Your task to perform on an android device: Clear all items from cart on amazon.com. Image 0: 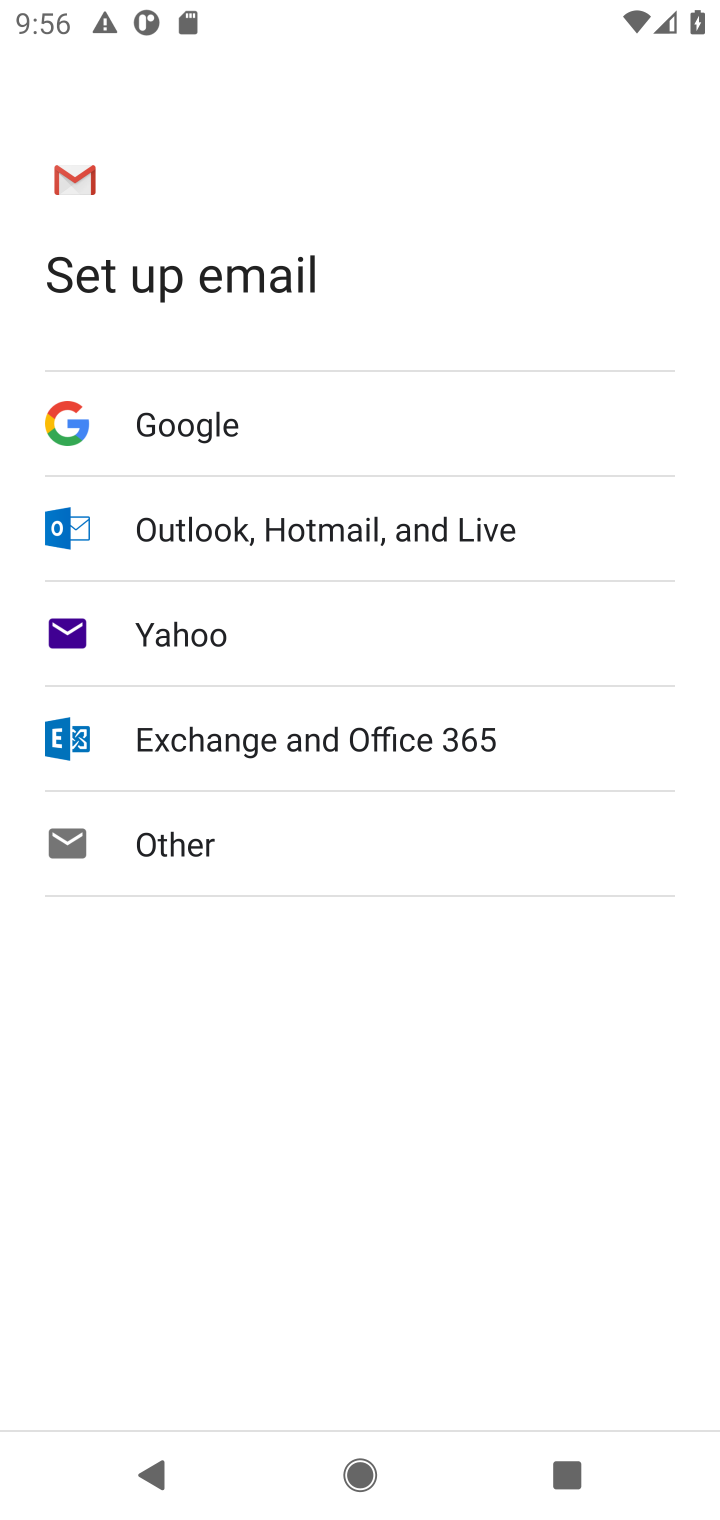
Step 0: press home button
Your task to perform on an android device: Clear all items from cart on amazon.com. Image 1: 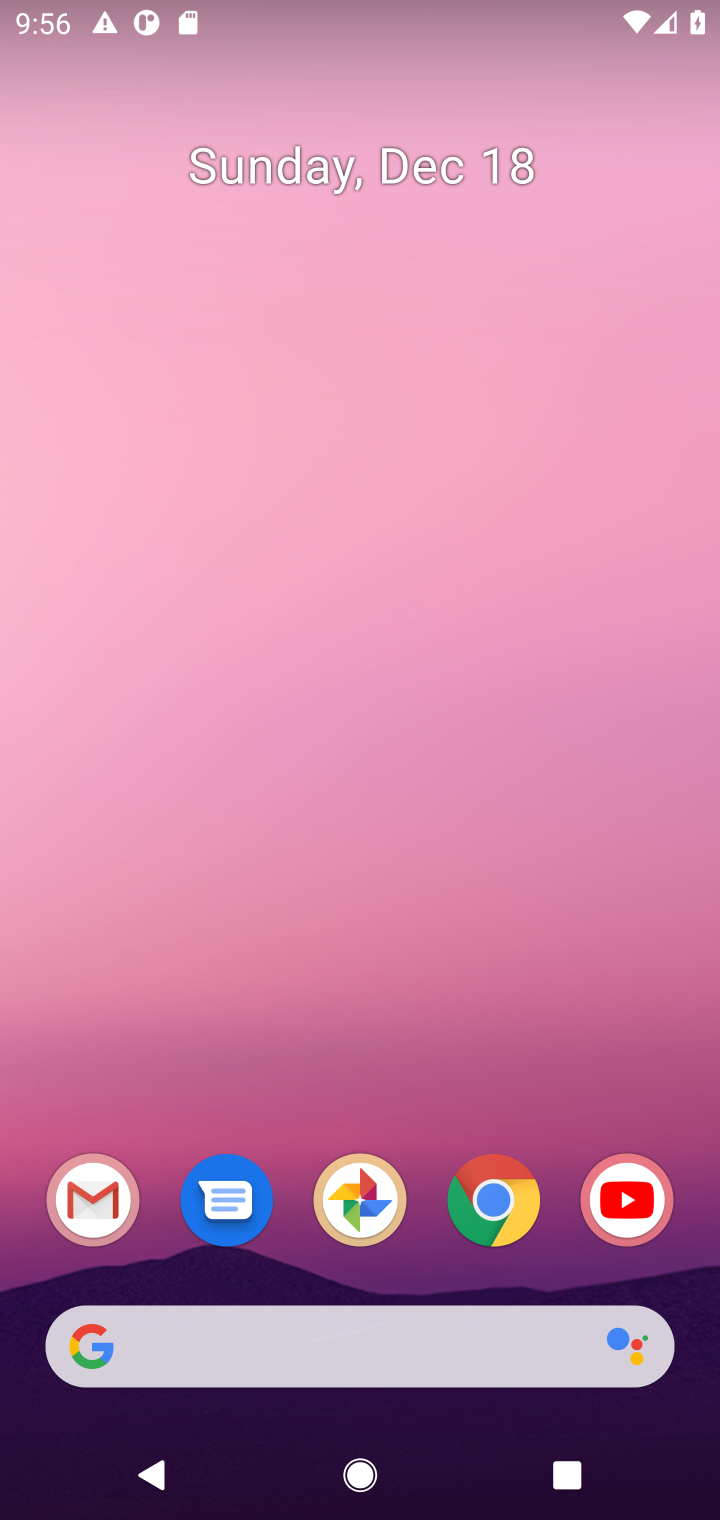
Step 1: click (496, 1199)
Your task to perform on an android device: Clear all items from cart on amazon.com. Image 2: 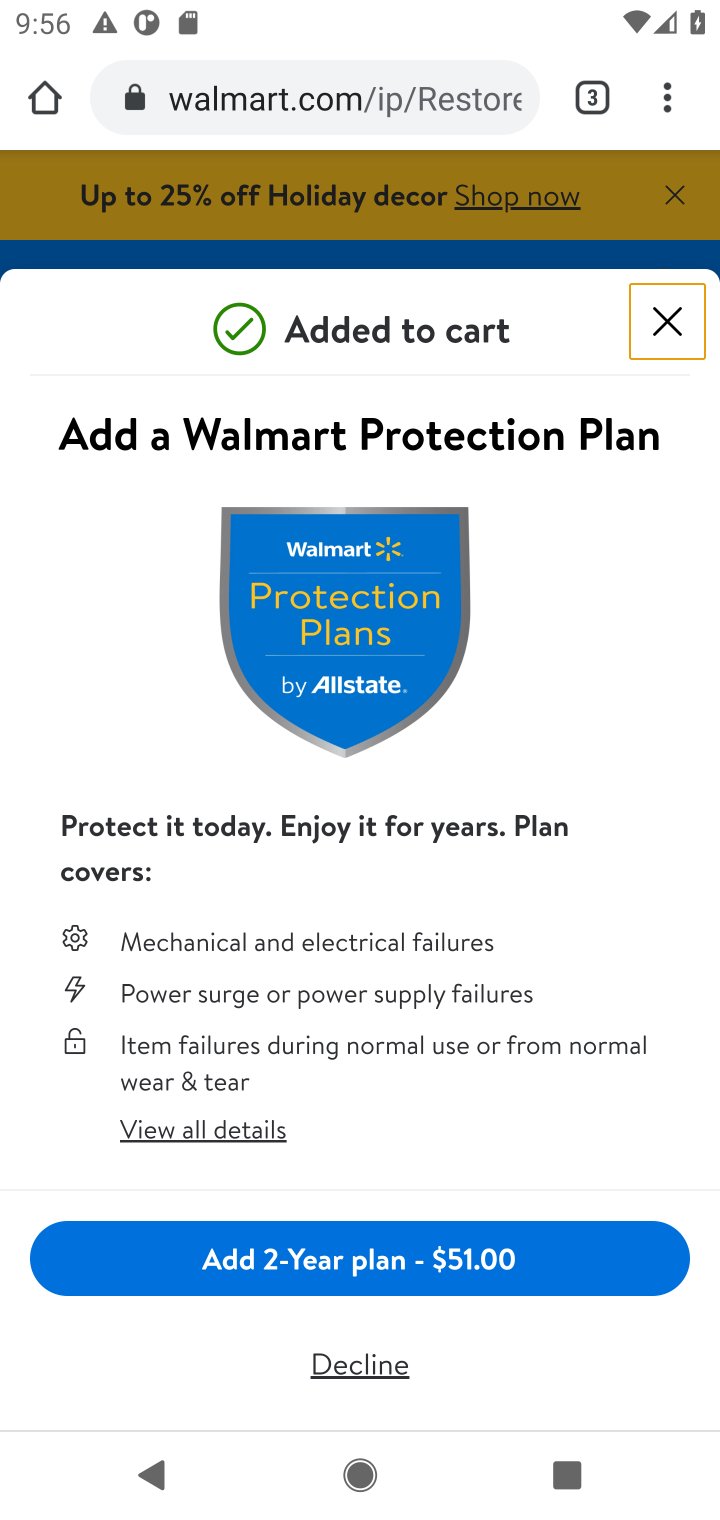
Step 2: click (496, 1199)
Your task to perform on an android device: Clear all items from cart on amazon.com. Image 3: 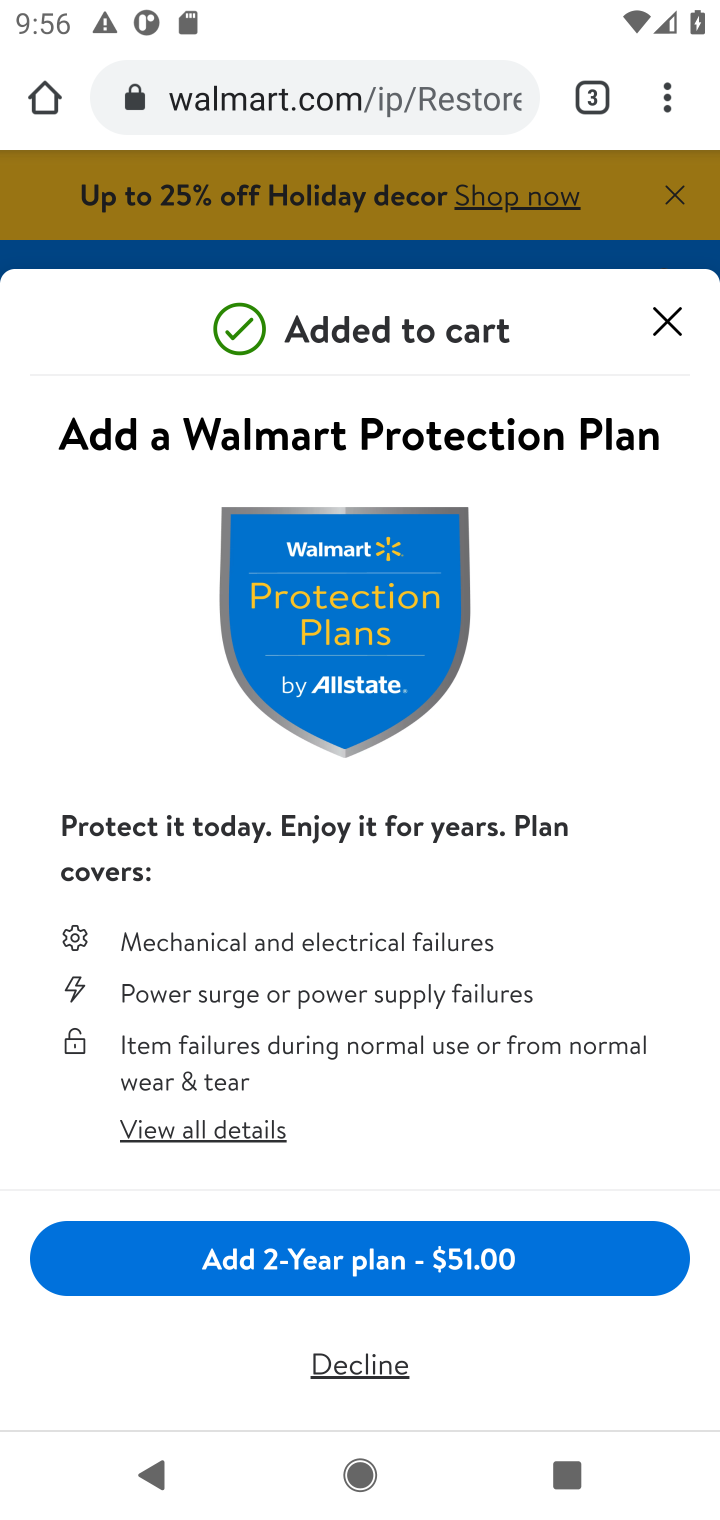
Step 3: click (309, 107)
Your task to perform on an android device: Clear all items from cart on amazon.com. Image 4: 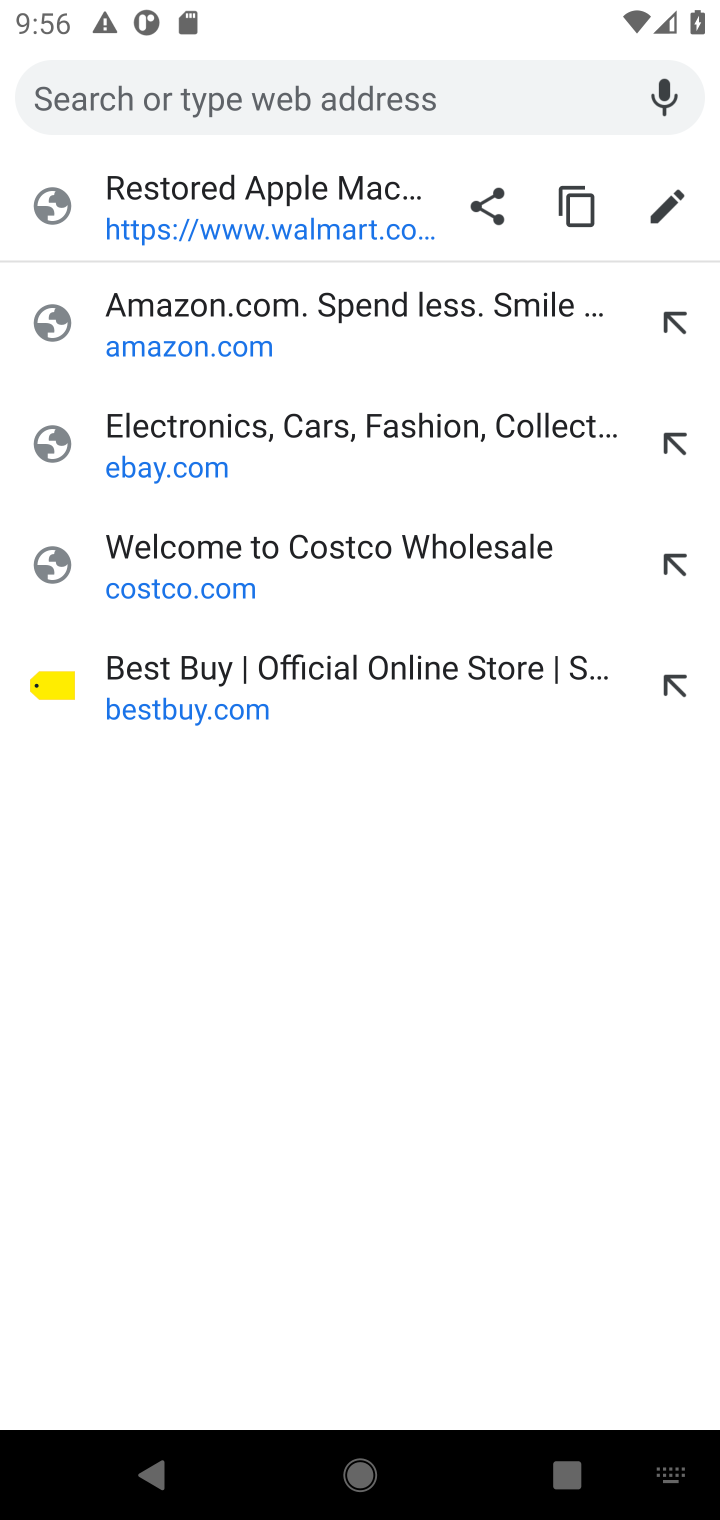
Step 4: click (189, 325)
Your task to perform on an android device: Clear all items from cart on amazon.com. Image 5: 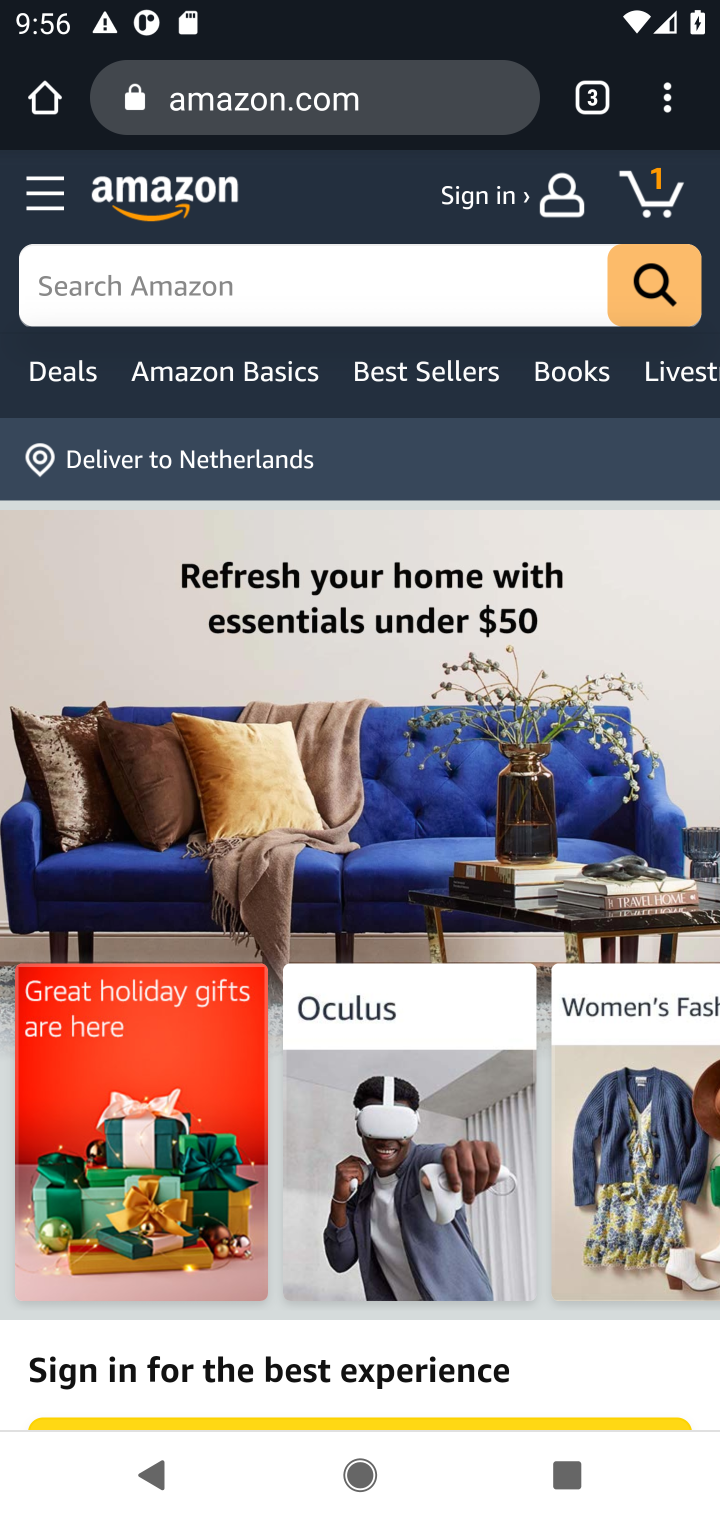
Step 5: click (647, 190)
Your task to perform on an android device: Clear all items from cart on amazon.com. Image 6: 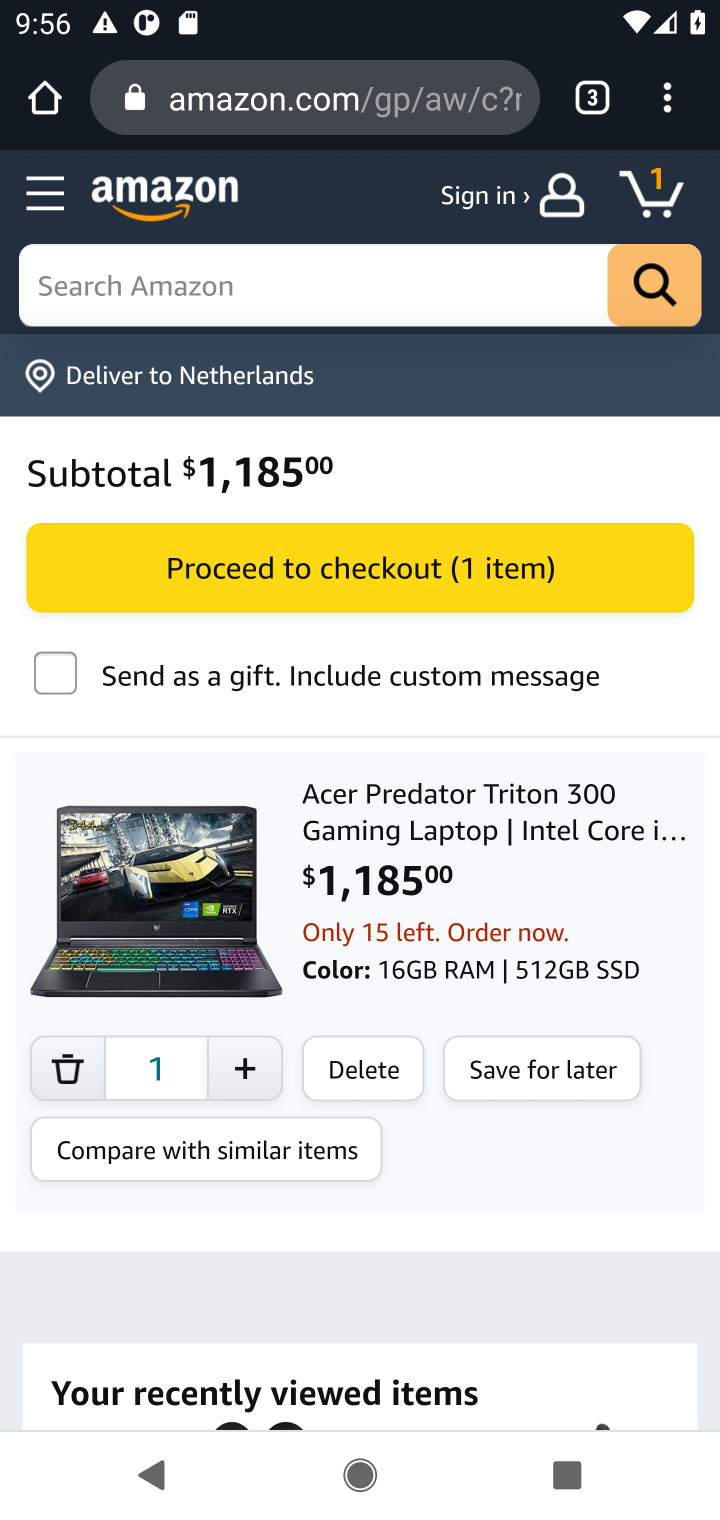
Step 6: click (352, 1068)
Your task to perform on an android device: Clear all items from cart on amazon.com. Image 7: 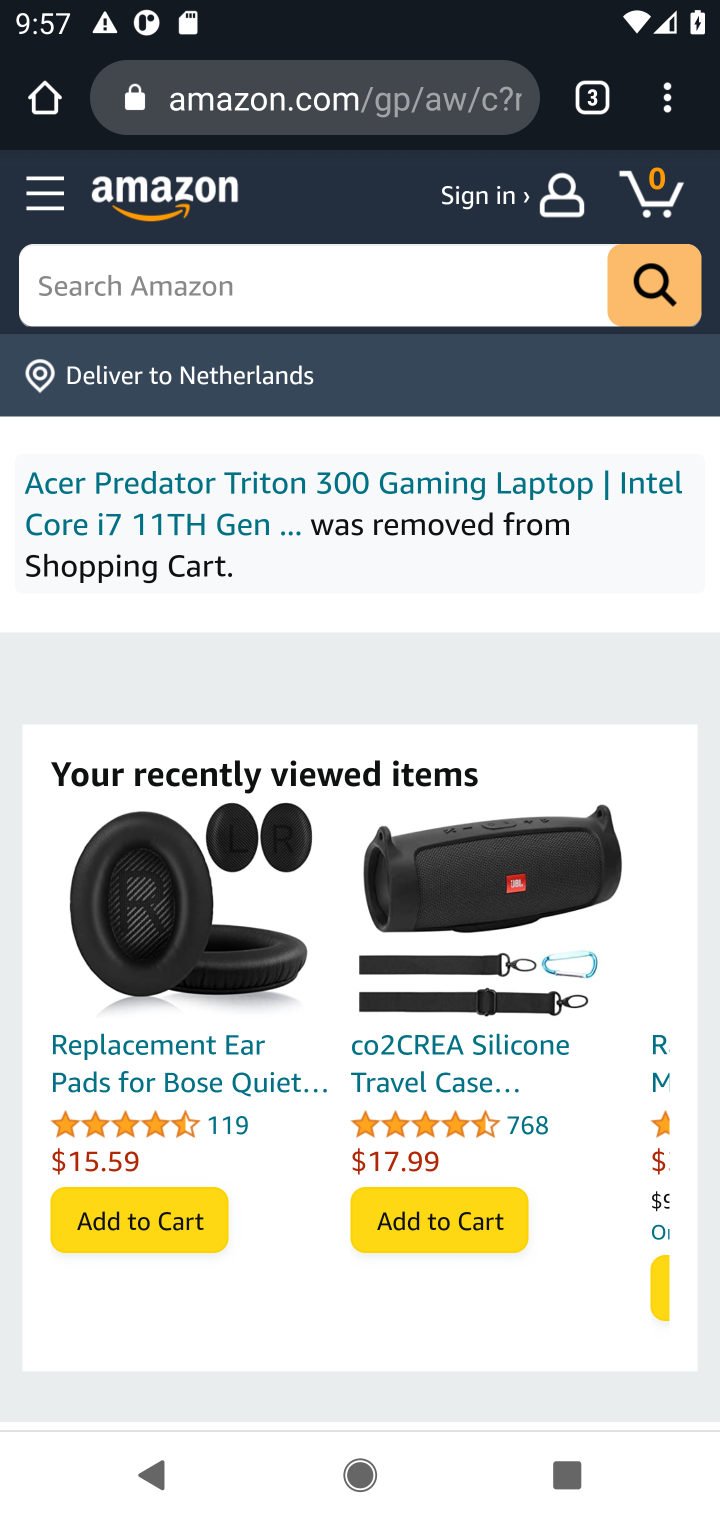
Step 7: task complete